Your task to perform on an android device: open wifi settings Image 0: 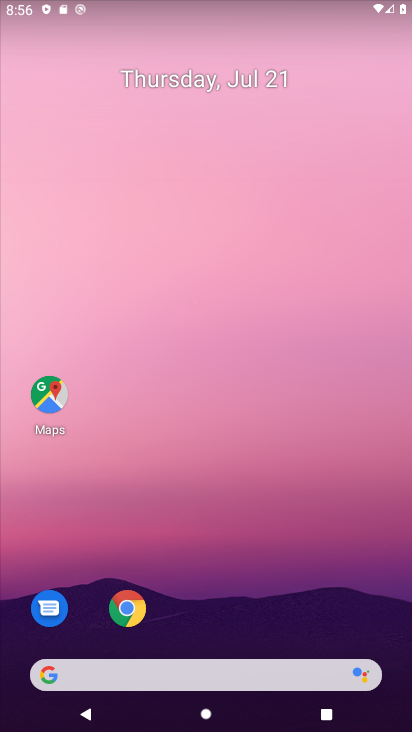
Step 0: drag from (311, 601) to (255, 161)
Your task to perform on an android device: open wifi settings Image 1: 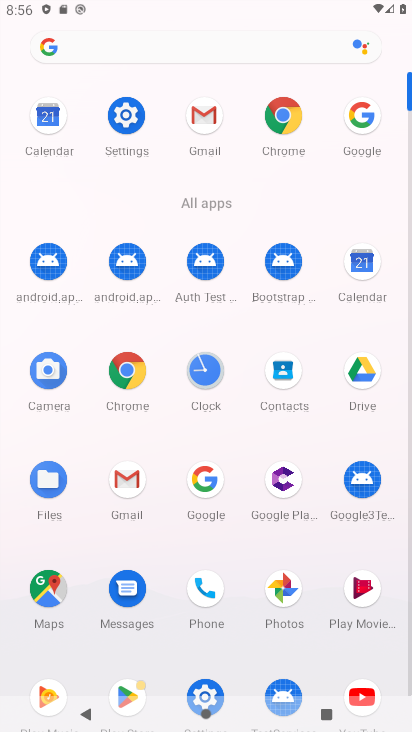
Step 1: click (120, 116)
Your task to perform on an android device: open wifi settings Image 2: 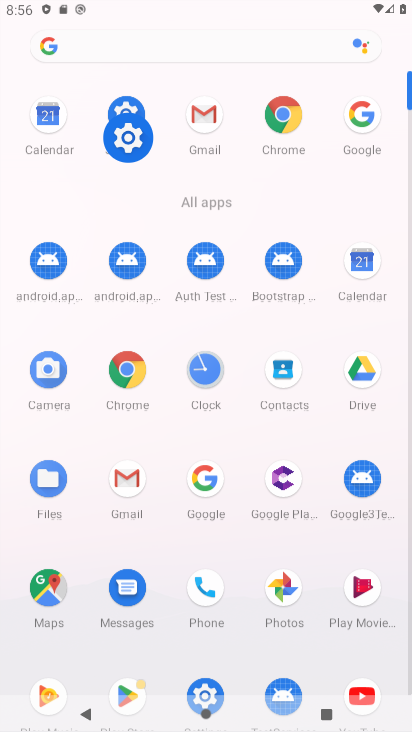
Step 2: click (120, 116)
Your task to perform on an android device: open wifi settings Image 3: 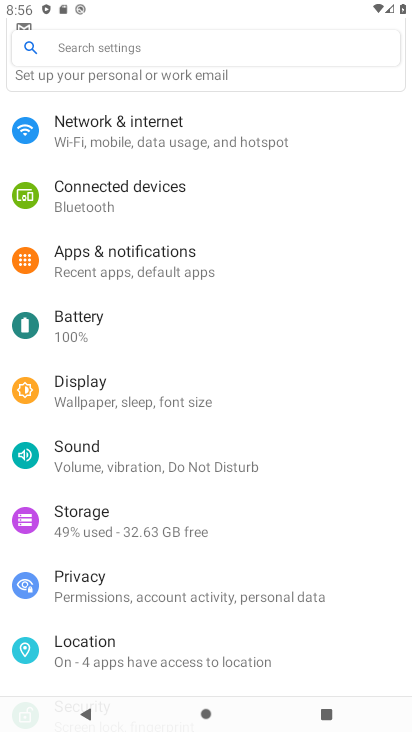
Step 3: click (125, 125)
Your task to perform on an android device: open wifi settings Image 4: 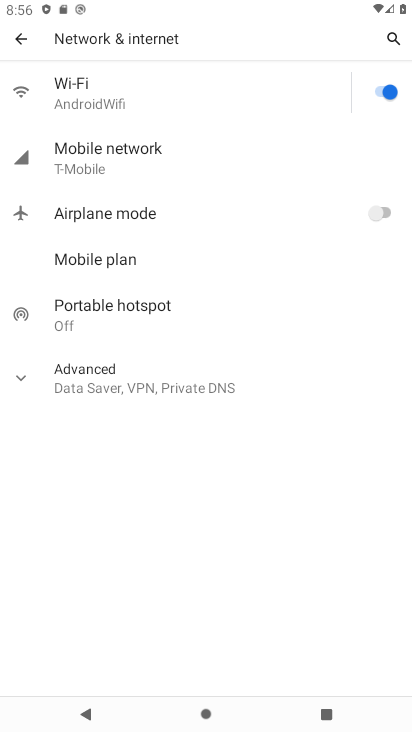
Step 4: click (123, 100)
Your task to perform on an android device: open wifi settings Image 5: 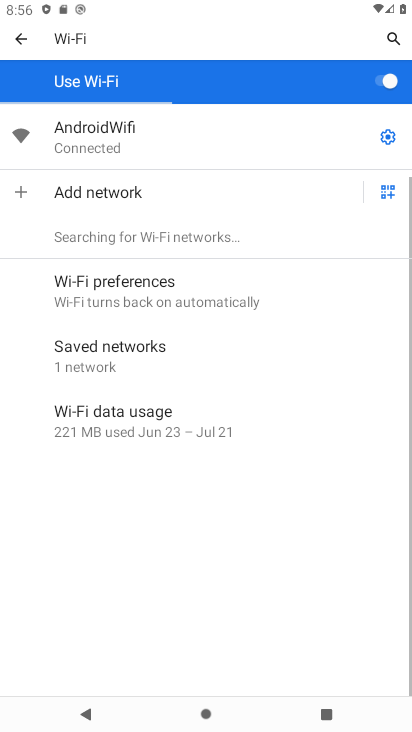
Step 5: task complete